Your task to perform on an android device: Clear the cart on ebay.com. Add asus zenbook to the cart on ebay.com, then select checkout. Image 0: 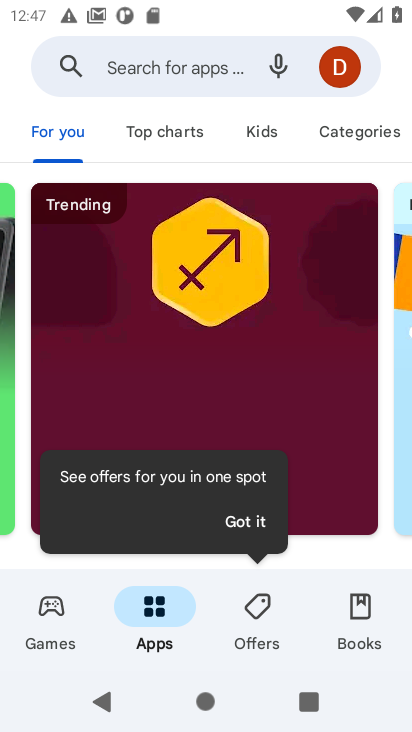
Step 0: press home button
Your task to perform on an android device: Clear the cart on ebay.com. Add asus zenbook to the cart on ebay.com, then select checkout. Image 1: 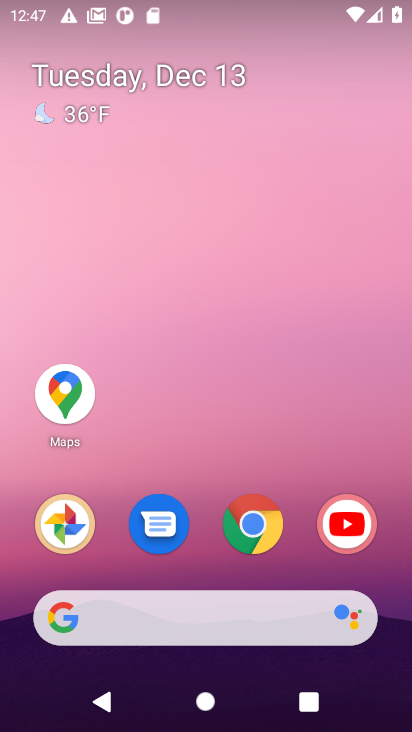
Step 1: click (280, 559)
Your task to perform on an android device: Clear the cart on ebay.com. Add asus zenbook to the cart on ebay.com, then select checkout. Image 2: 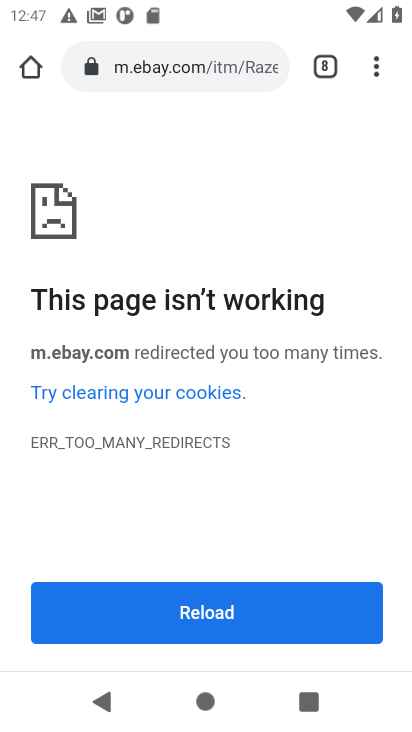
Step 2: press back button
Your task to perform on an android device: Clear the cart on ebay.com. Add asus zenbook to the cart on ebay.com, then select checkout. Image 3: 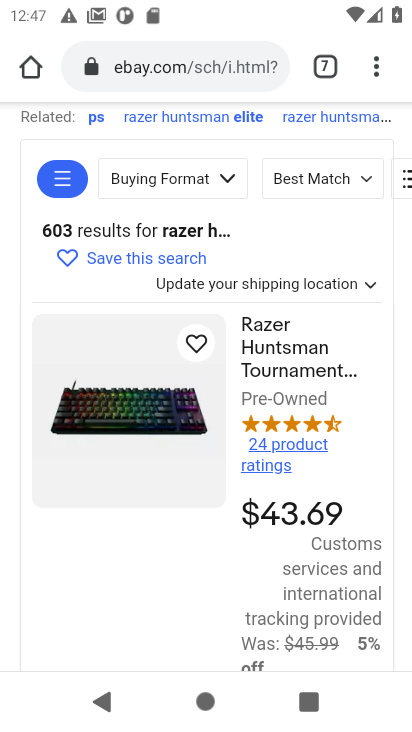
Step 3: drag from (248, 226) to (193, 492)
Your task to perform on an android device: Clear the cart on ebay.com. Add asus zenbook to the cart on ebay.com, then select checkout. Image 4: 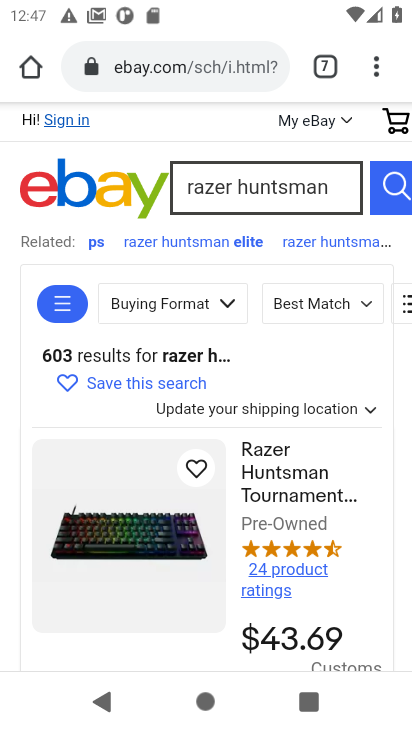
Step 4: click (396, 123)
Your task to perform on an android device: Clear the cart on ebay.com. Add asus zenbook to the cart on ebay.com, then select checkout. Image 5: 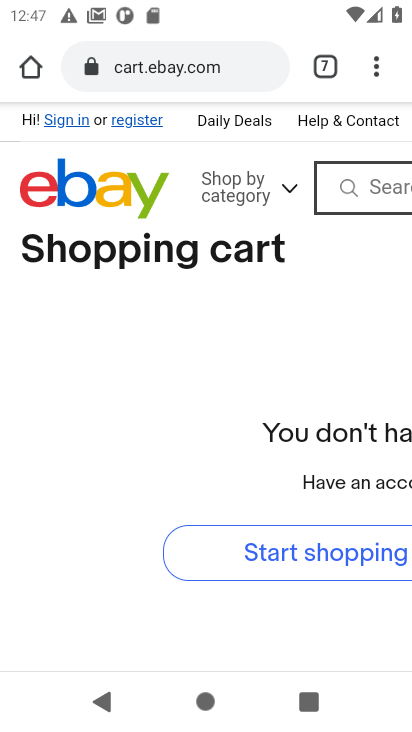
Step 5: click (358, 185)
Your task to perform on an android device: Clear the cart on ebay.com. Add asus zenbook to the cart on ebay.com, then select checkout. Image 6: 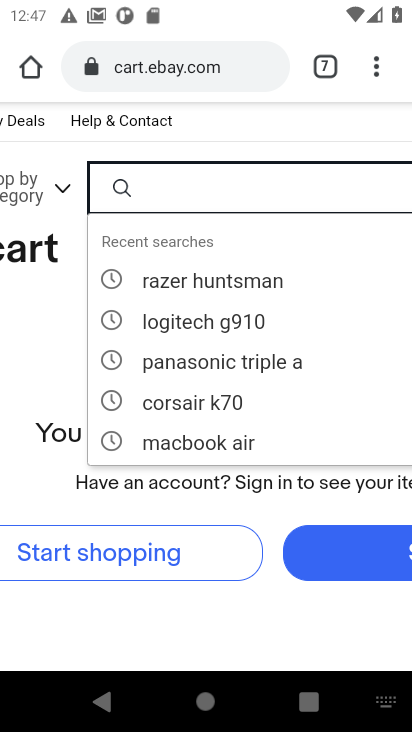
Step 6: type "asus zenbook "
Your task to perform on an android device: Clear the cart on ebay.com. Add asus zenbook to the cart on ebay.com, then select checkout. Image 7: 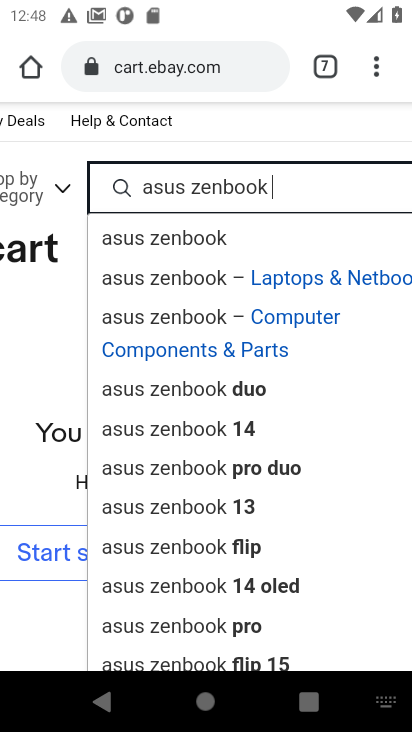
Step 7: click (149, 246)
Your task to perform on an android device: Clear the cart on ebay.com. Add asus zenbook to the cart on ebay.com, then select checkout. Image 8: 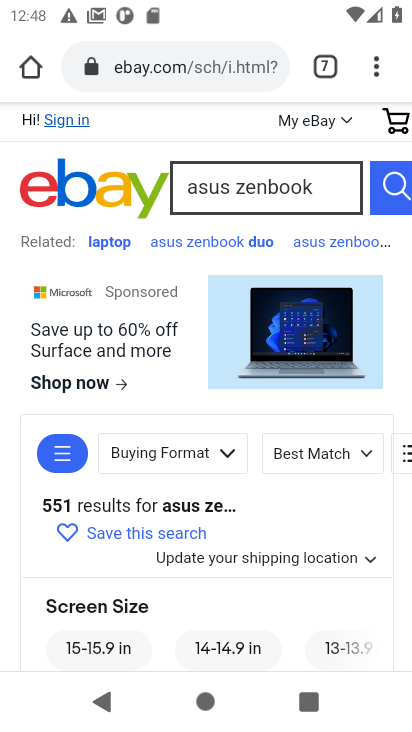
Step 8: drag from (167, 526) to (162, 165)
Your task to perform on an android device: Clear the cart on ebay.com. Add asus zenbook to the cart on ebay.com, then select checkout. Image 9: 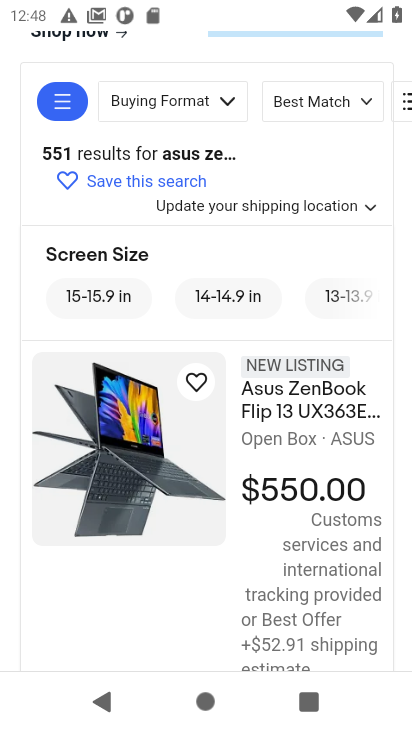
Step 9: click (315, 409)
Your task to perform on an android device: Clear the cart on ebay.com. Add asus zenbook to the cart on ebay.com, then select checkout. Image 10: 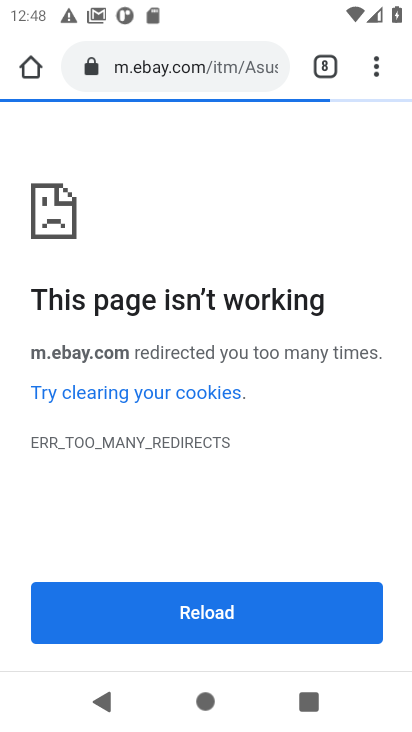
Step 10: task complete